Your task to perform on an android device: Open wifi settings Image 0: 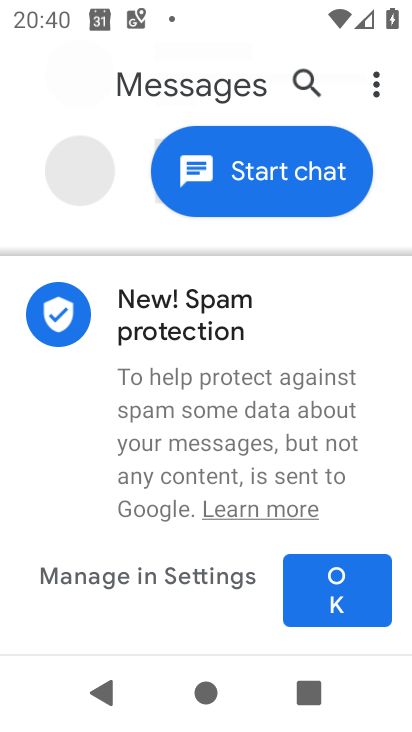
Step 0: press home button
Your task to perform on an android device: Open wifi settings Image 1: 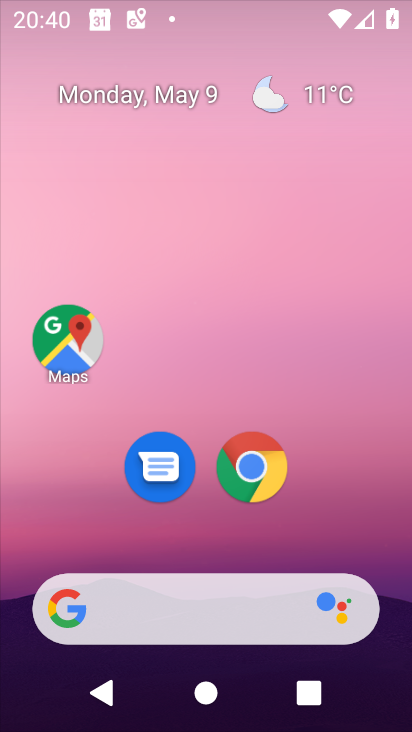
Step 1: drag from (262, 602) to (296, 296)
Your task to perform on an android device: Open wifi settings Image 2: 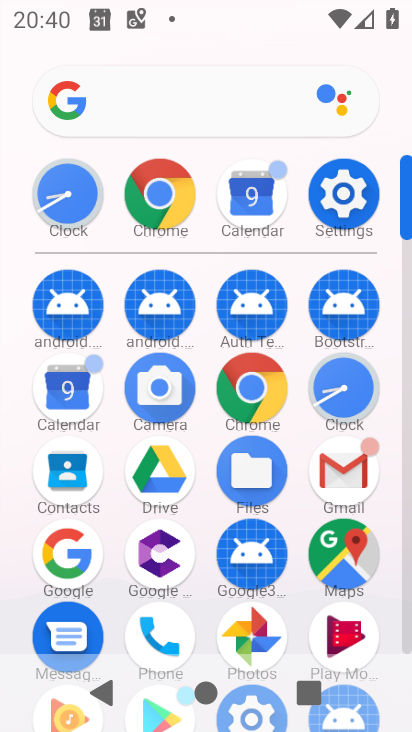
Step 2: click (323, 190)
Your task to perform on an android device: Open wifi settings Image 3: 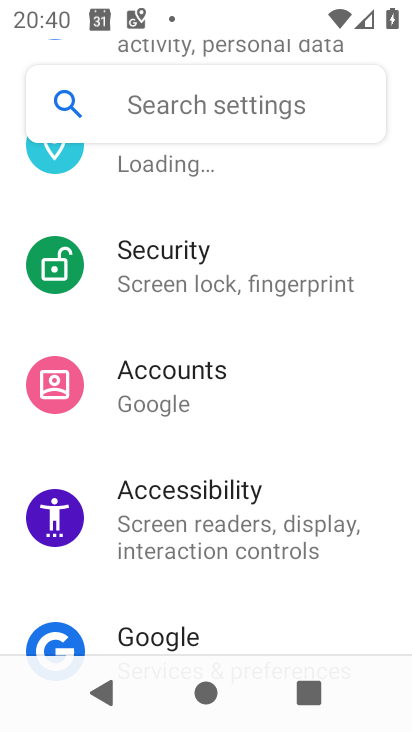
Step 3: drag from (200, 197) to (207, 530)
Your task to perform on an android device: Open wifi settings Image 4: 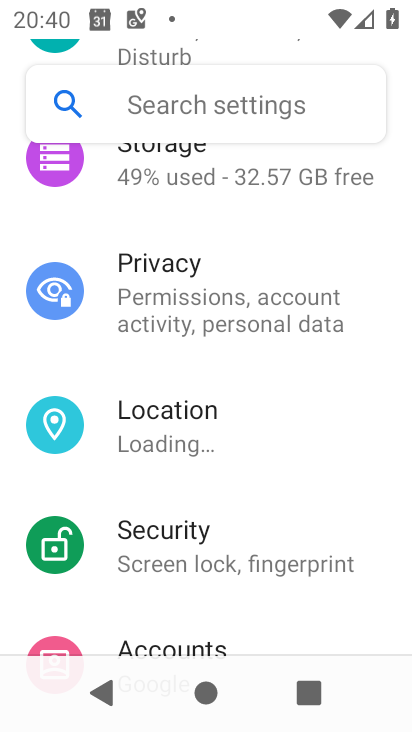
Step 4: drag from (230, 221) to (213, 626)
Your task to perform on an android device: Open wifi settings Image 5: 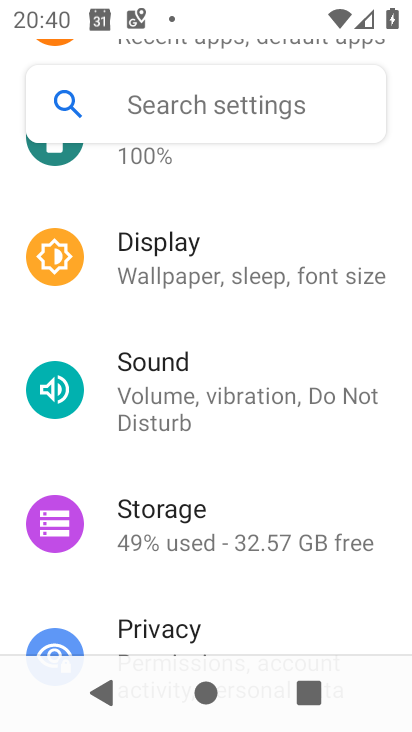
Step 5: drag from (227, 213) to (223, 633)
Your task to perform on an android device: Open wifi settings Image 6: 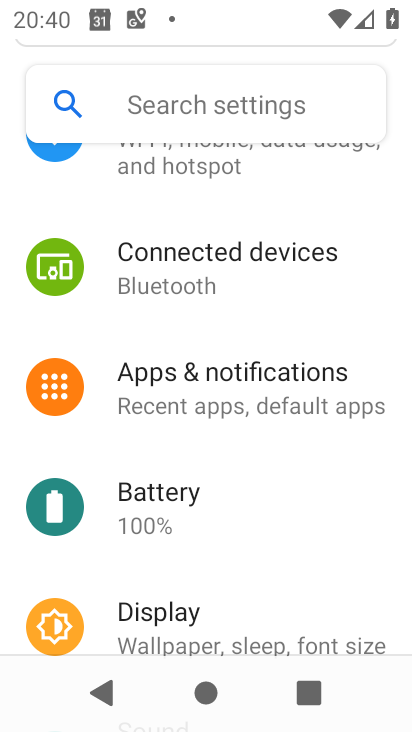
Step 6: drag from (186, 241) to (194, 693)
Your task to perform on an android device: Open wifi settings Image 7: 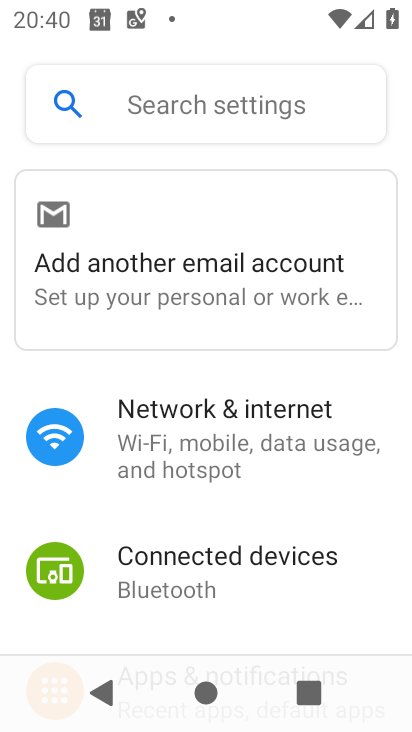
Step 7: click (192, 442)
Your task to perform on an android device: Open wifi settings Image 8: 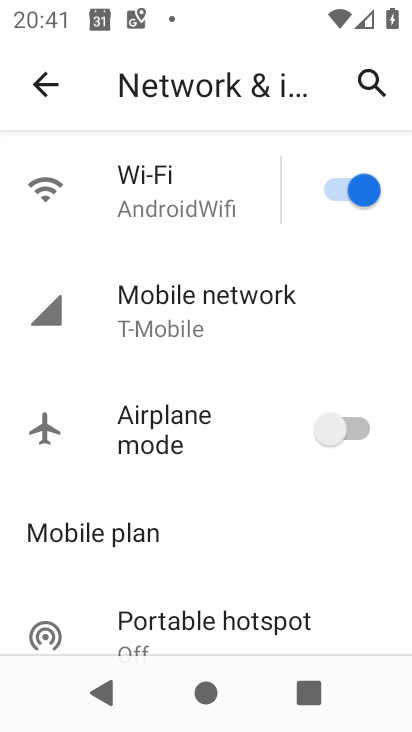
Step 8: task complete